Your task to perform on an android device: Clear the shopping cart on costco.com. Image 0: 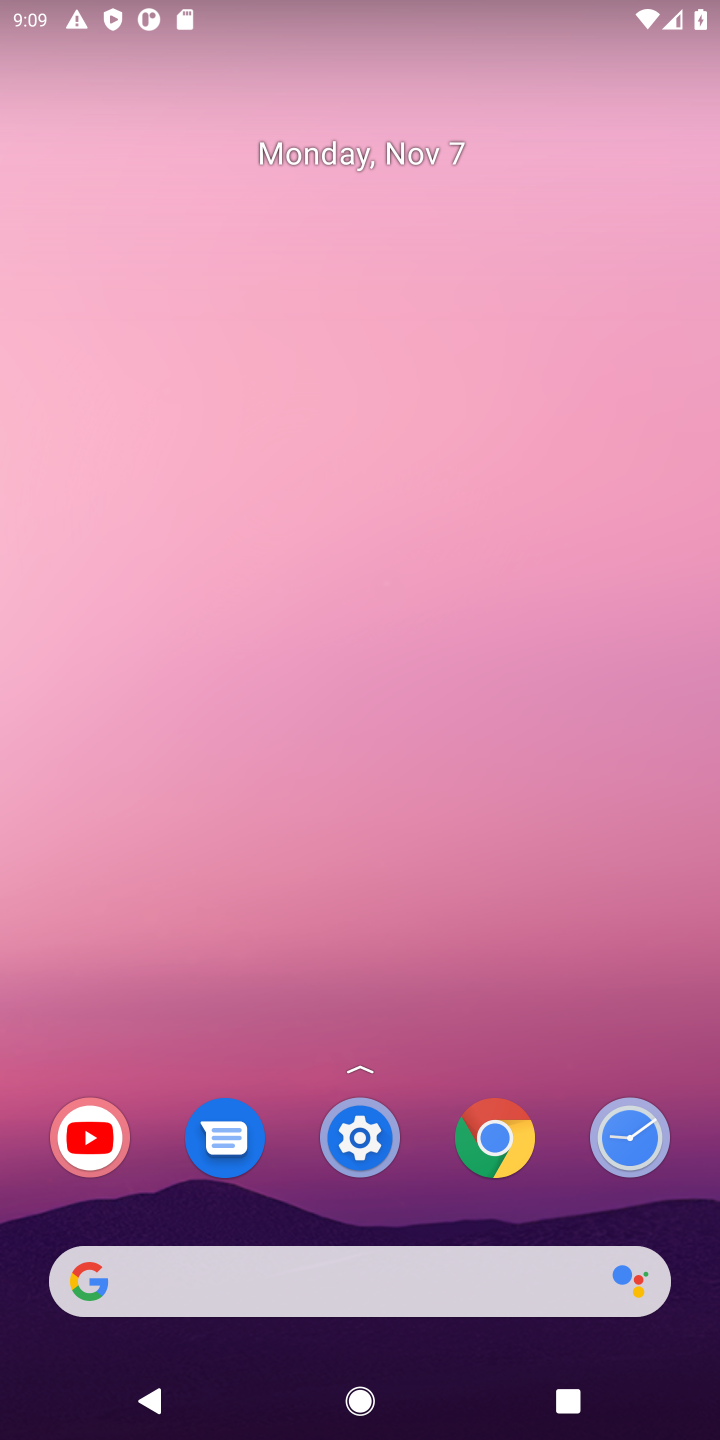
Step 0: click (498, 1172)
Your task to perform on an android device: Clear the shopping cart on costco.com. Image 1: 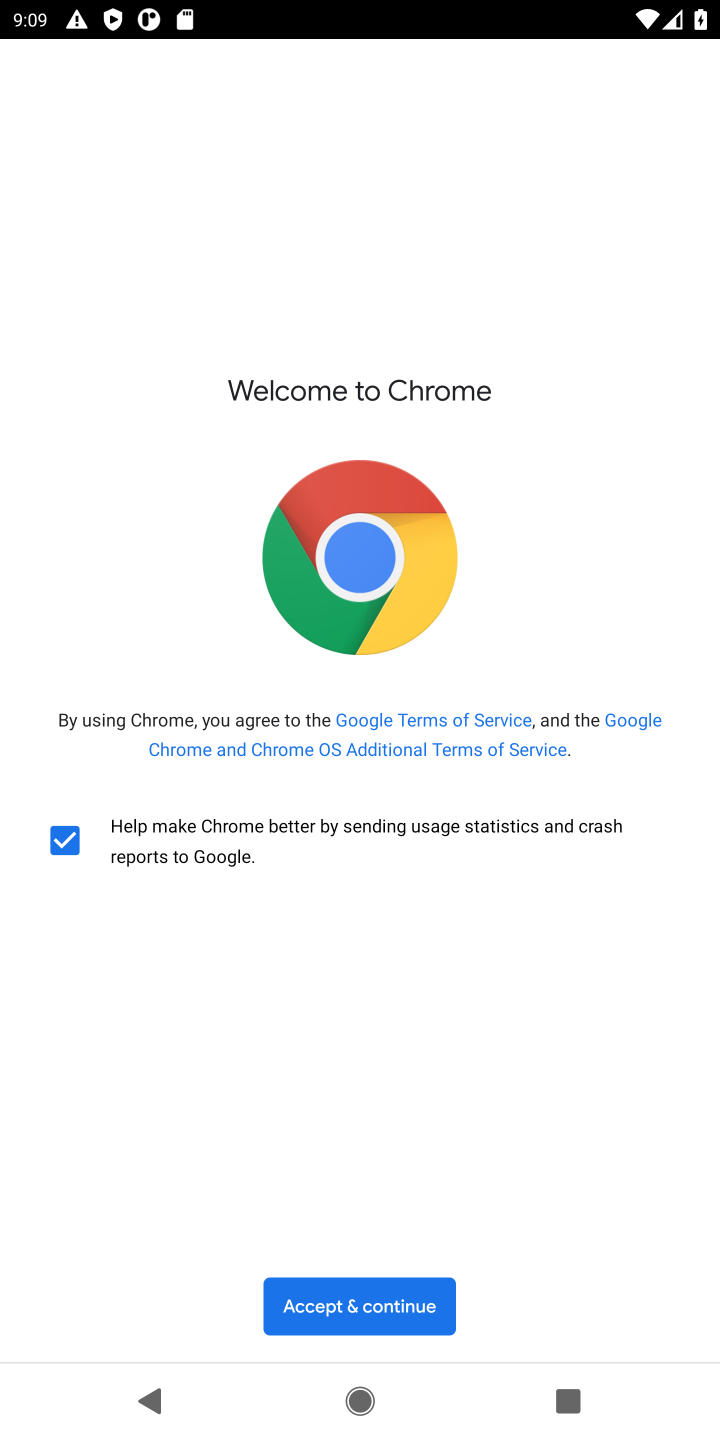
Step 1: click (315, 1328)
Your task to perform on an android device: Clear the shopping cart on costco.com. Image 2: 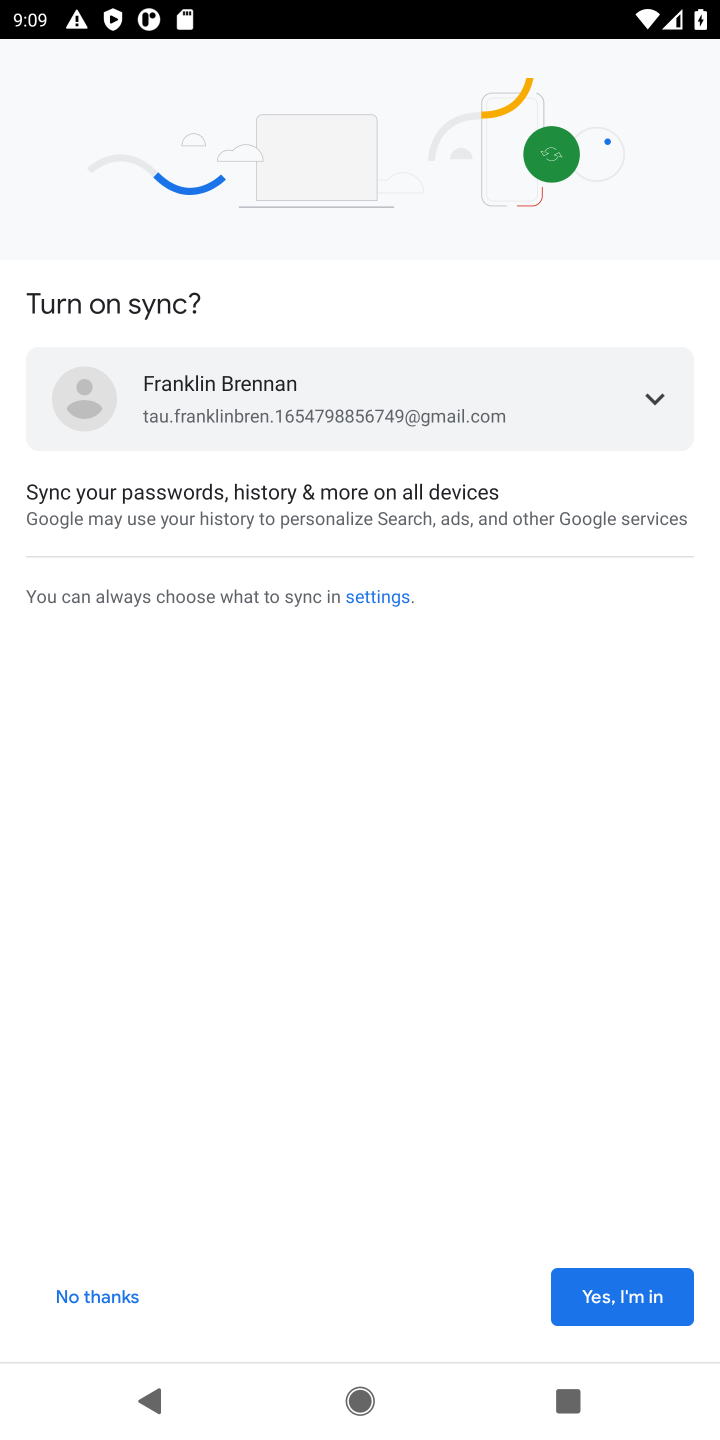
Step 2: click (596, 1303)
Your task to perform on an android device: Clear the shopping cart on costco.com. Image 3: 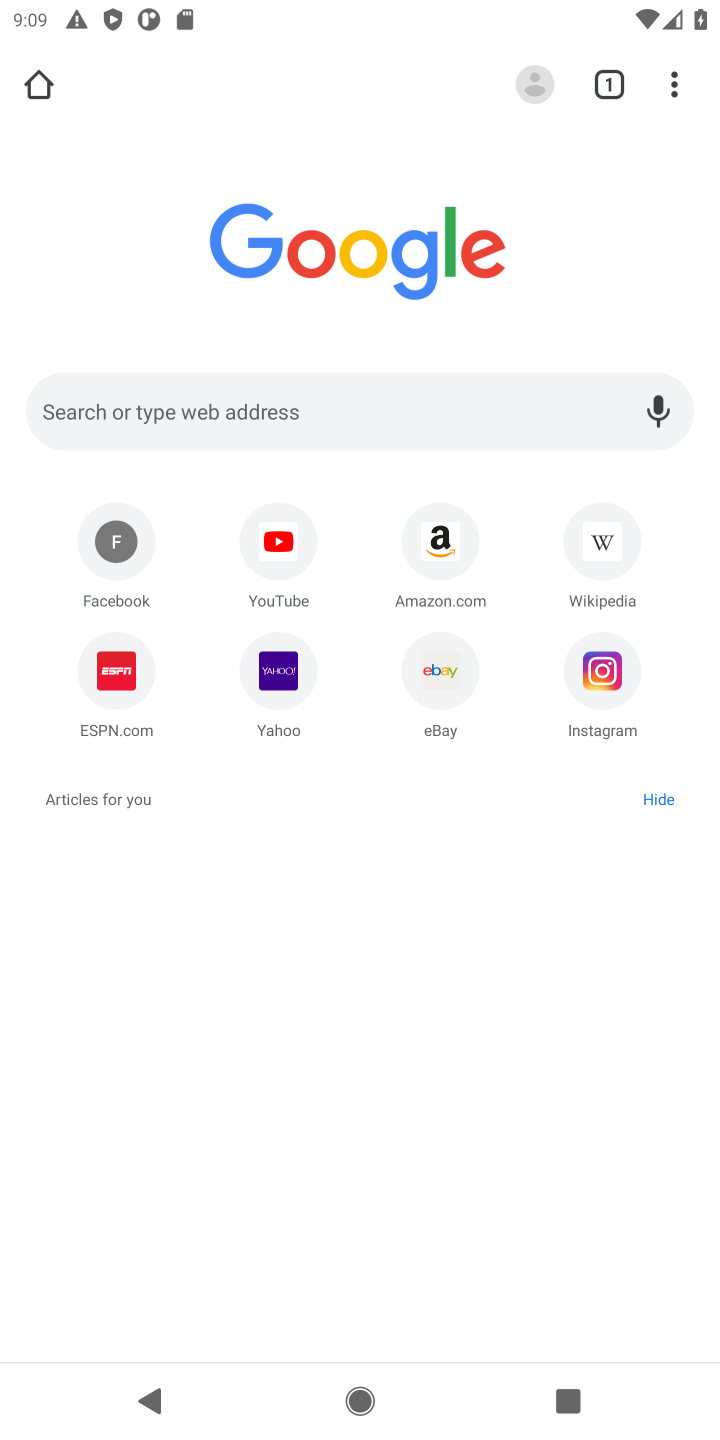
Step 3: click (440, 440)
Your task to perform on an android device: Clear the shopping cart on costco.com. Image 4: 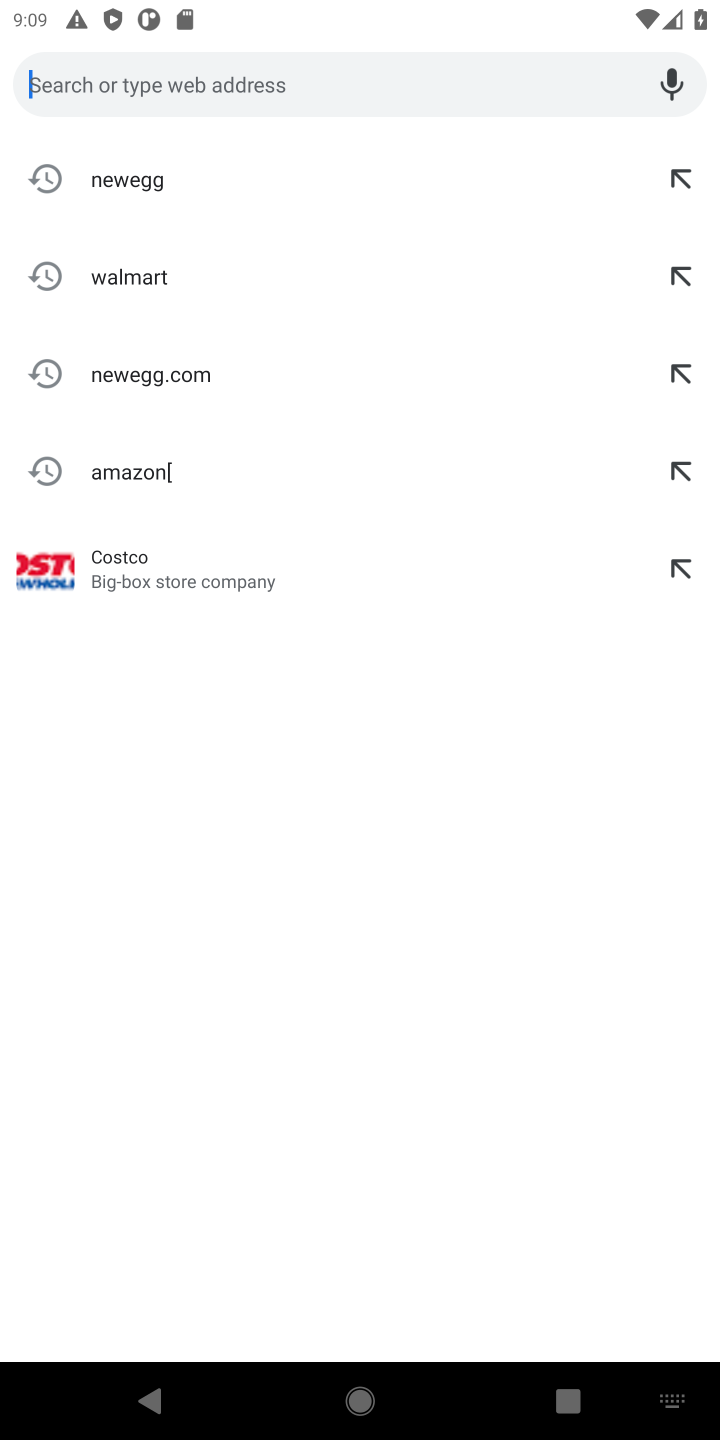
Step 4: click (110, 573)
Your task to perform on an android device: Clear the shopping cart on costco.com. Image 5: 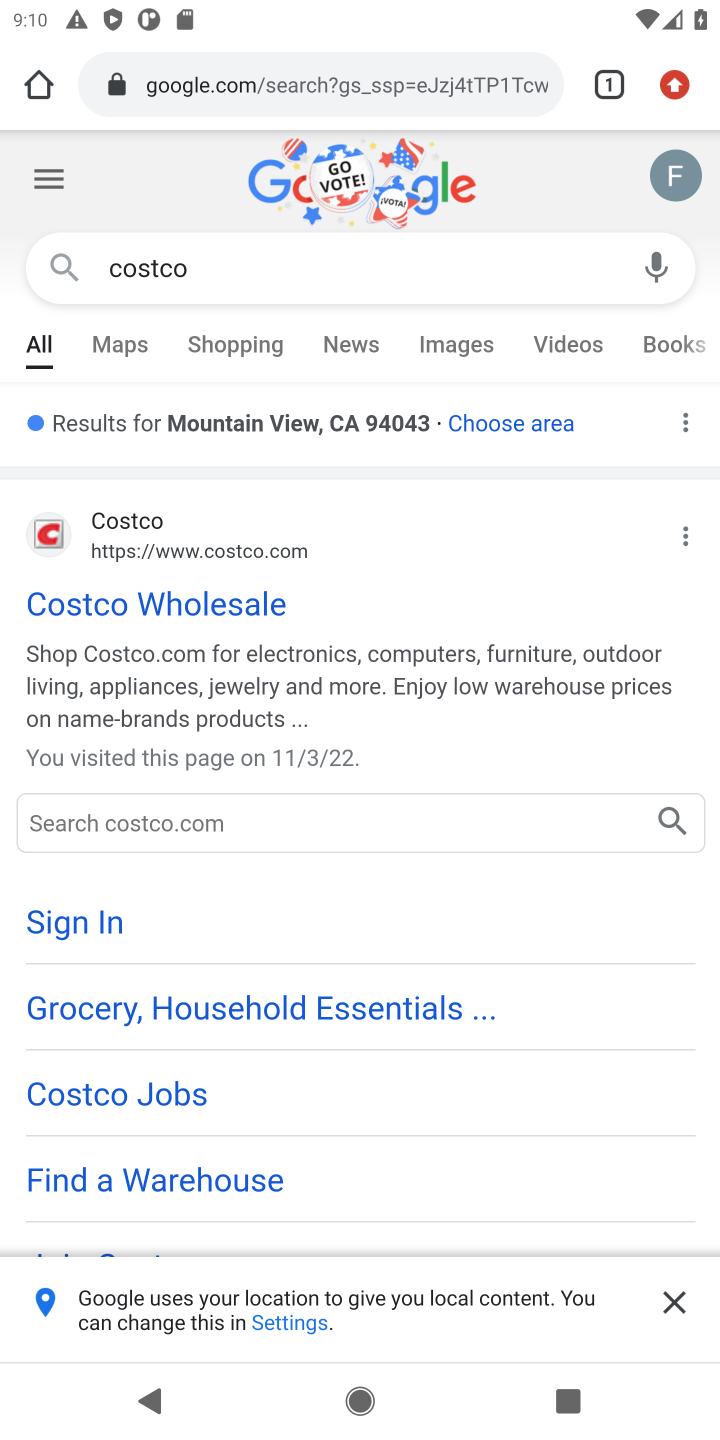
Step 5: click (220, 595)
Your task to perform on an android device: Clear the shopping cart on costco.com. Image 6: 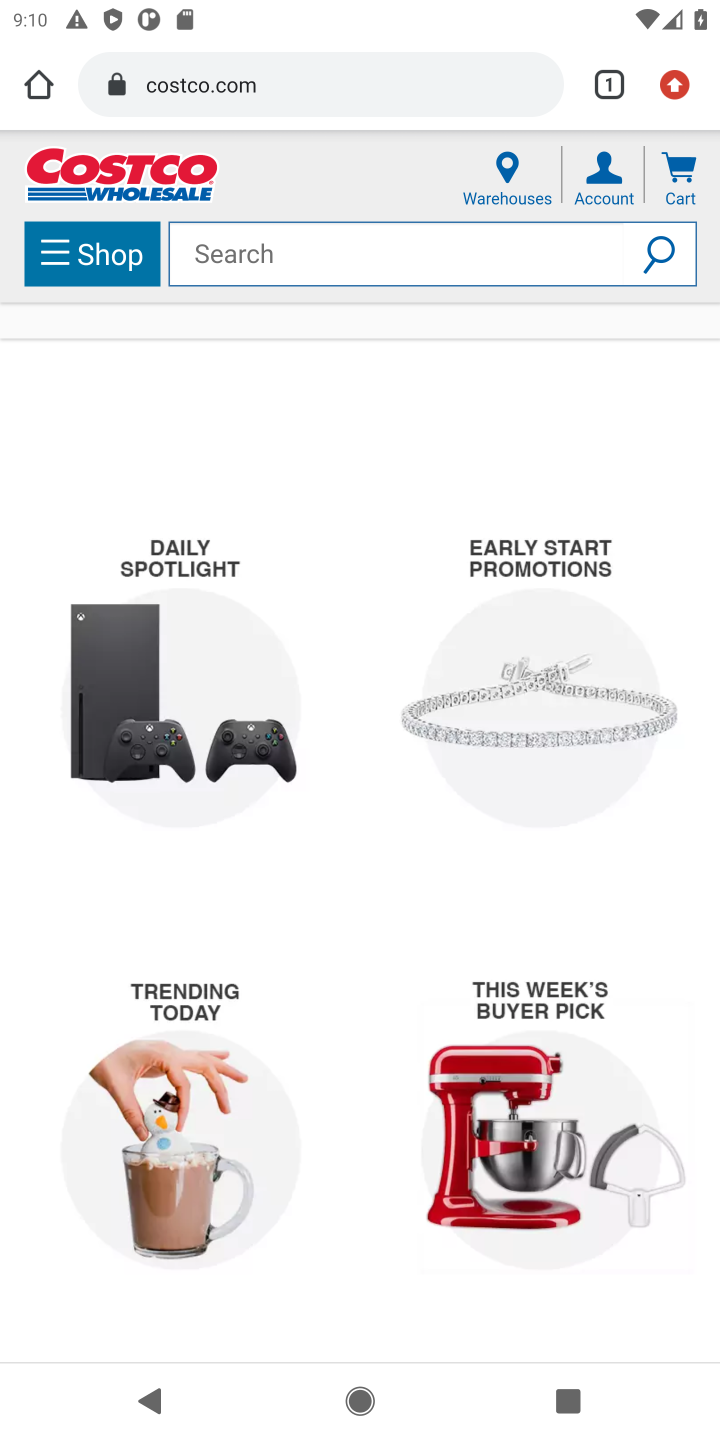
Step 6: click (251, 242)
Your task to perform on an android device: Clear the shopping cart on costco.com. Image 7: 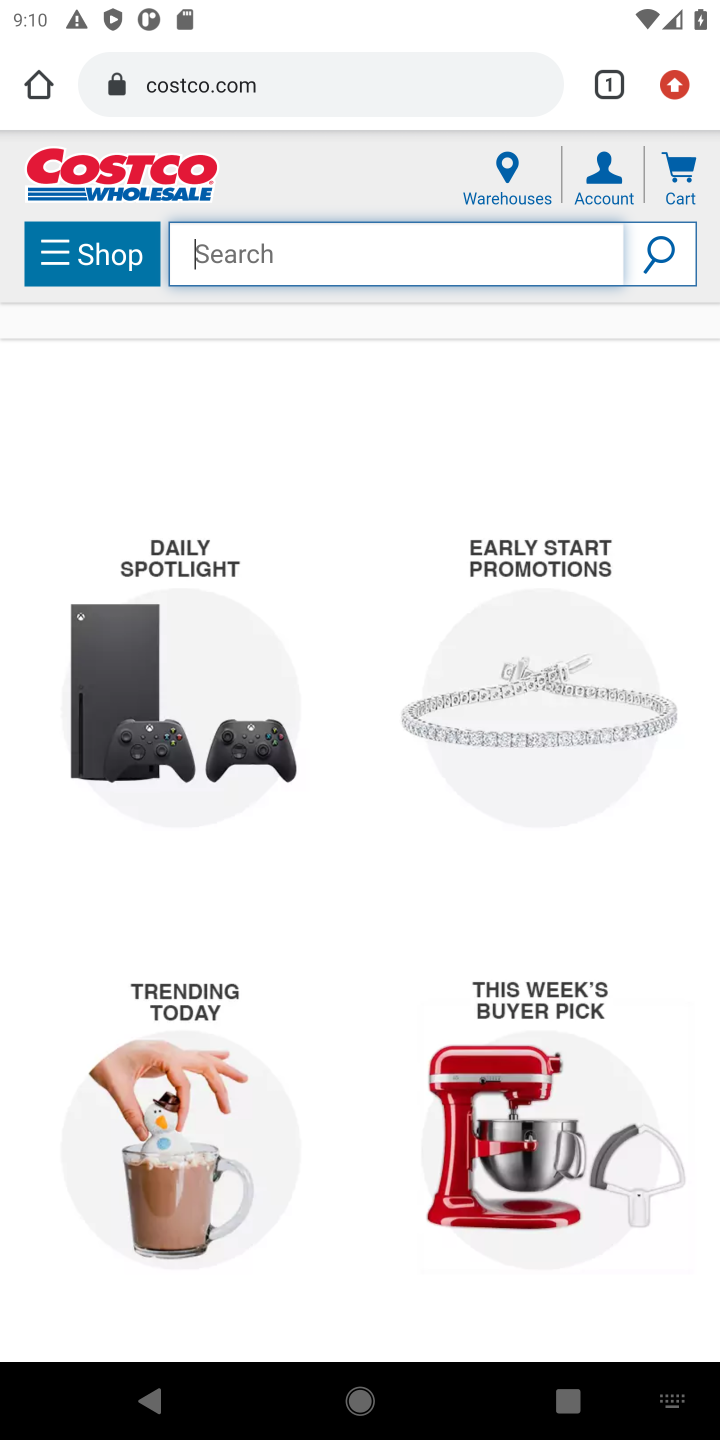
Step 7: click (697, 185)
Your task to perform on an android device: Clear the shopping cart on costco.com. Image 8: 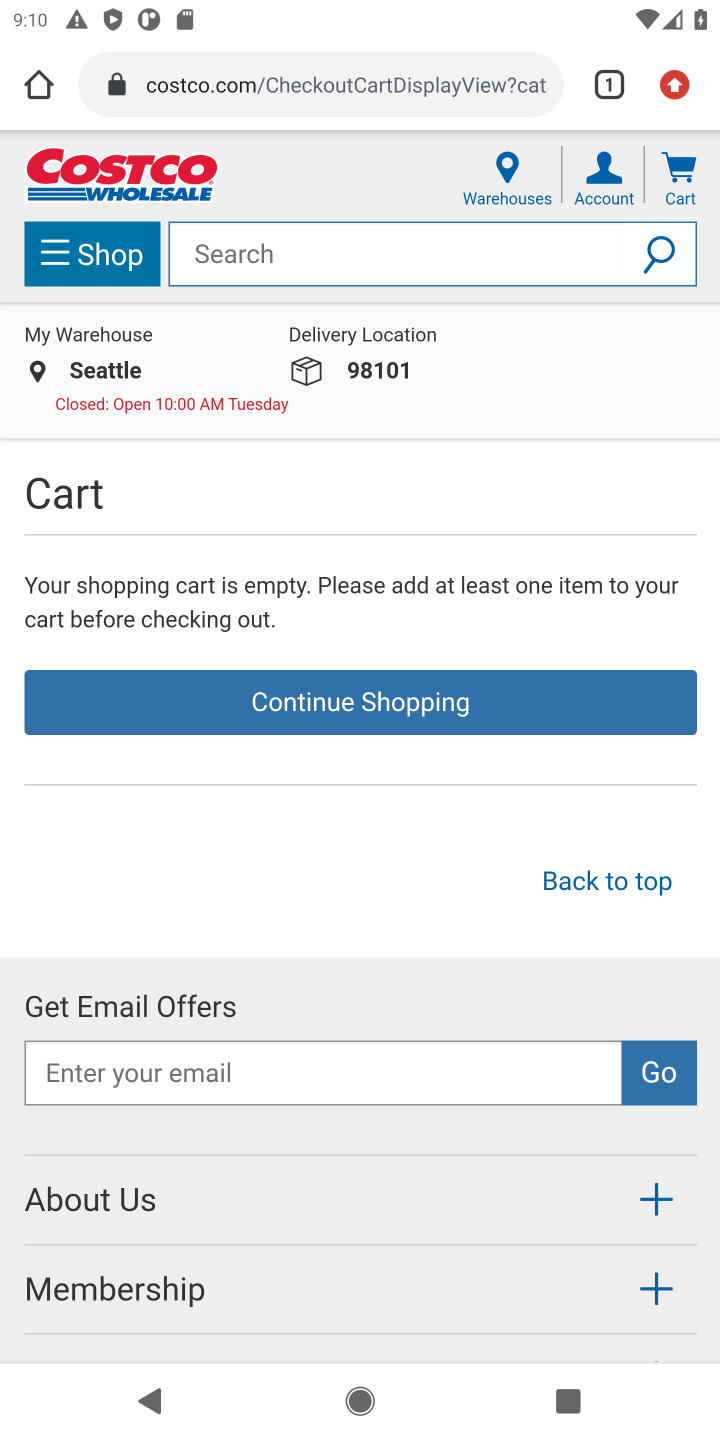
Step 8: task complete